Your task to perform on an android device: Open the map Image 0: 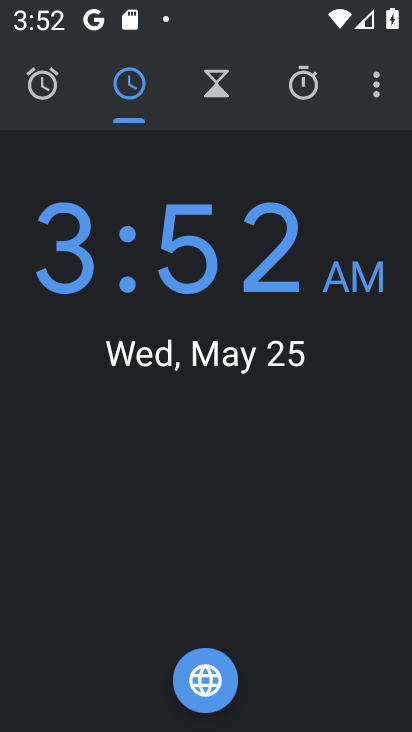
Step 0: press home button
Your task to perform on an android device: Open the map Image 1: 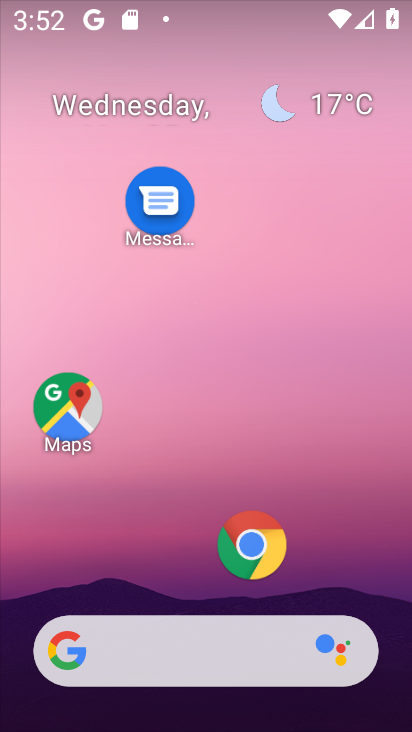
Step 1: click (76, 426)
Your task to perform on an android device: Open the map Image 2: 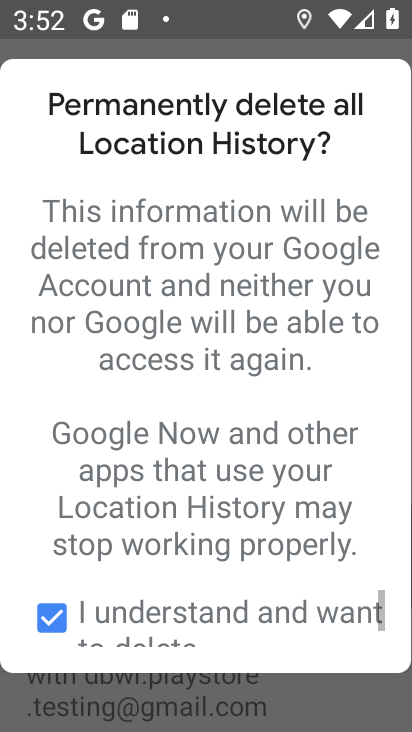
Step 2: task complete